Your task to perform on an android device: toggle javascript in the chrome app Image 0: 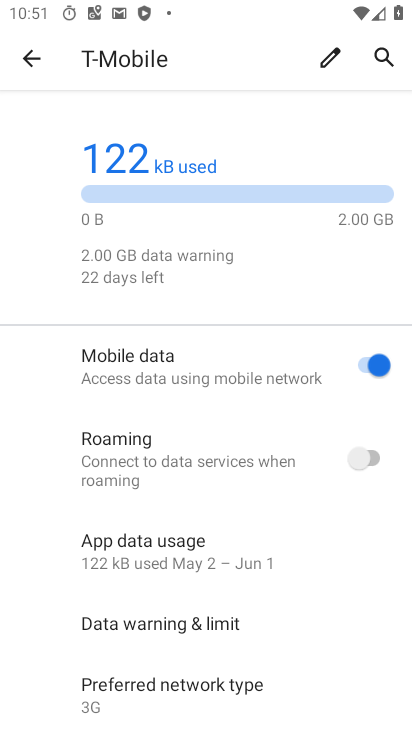
Step 0: click (37, 59)
Your task to perform on an android device: toggle javascript in the chrome app Image 1: 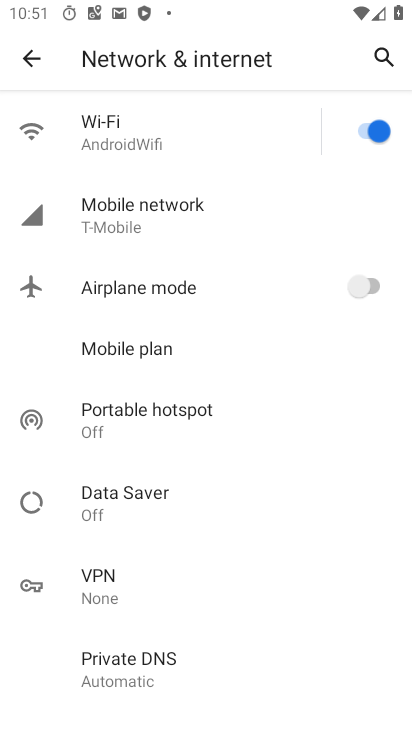
Step 1: press back button
Your task to perform on an android device: toggle javascript in the chrome app Image 2: 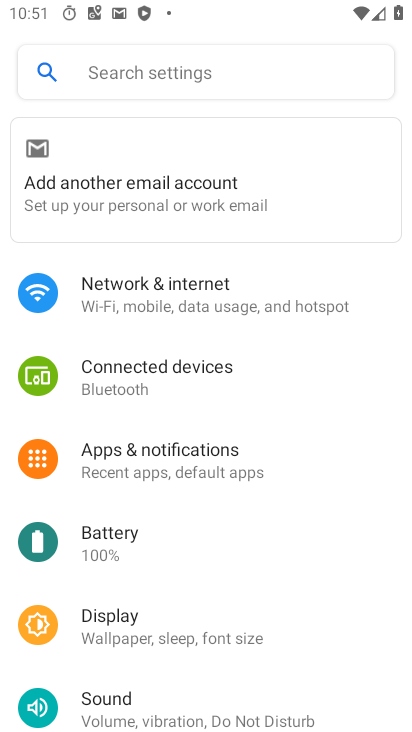
Step 2: press back button
Your task to perform on an android device: toggle javascript in the chrome app Image 3: 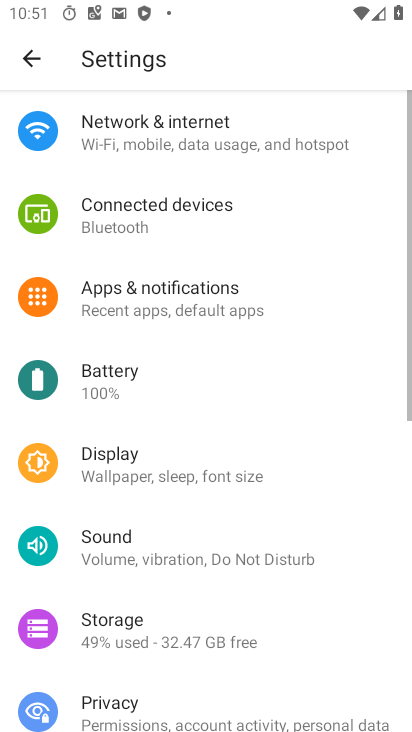
Step 3: press back button
Your task to perform on an android device: toggle javascript in the chrome app Image 4: 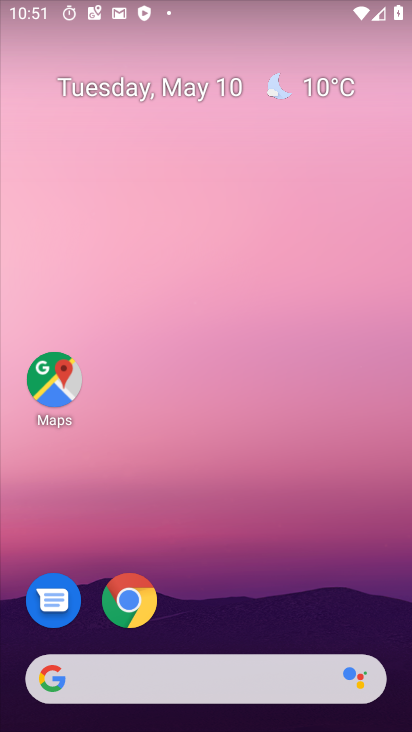
Step 4: drag from (224, 547) to (224, 36)
Your task to perform on an android device: toggle javascript in the chrome app Image 5: 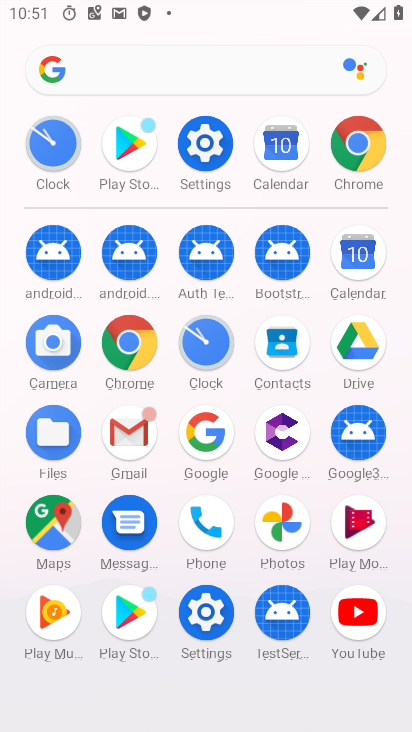
Step 5: click (124, 337)
Your task to perform on an android device: toggle javascript in the chrome app Image 6: 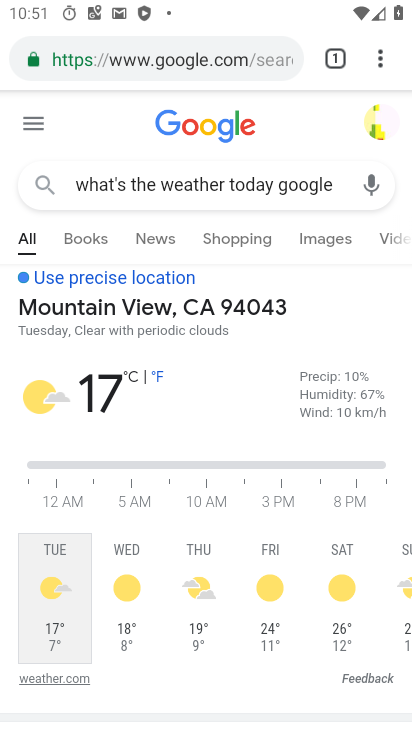
Step 6: drag from (379, 57) to (189, 612)
Your task to perform on an android device: toggle javascript in the chrome app Image 7: 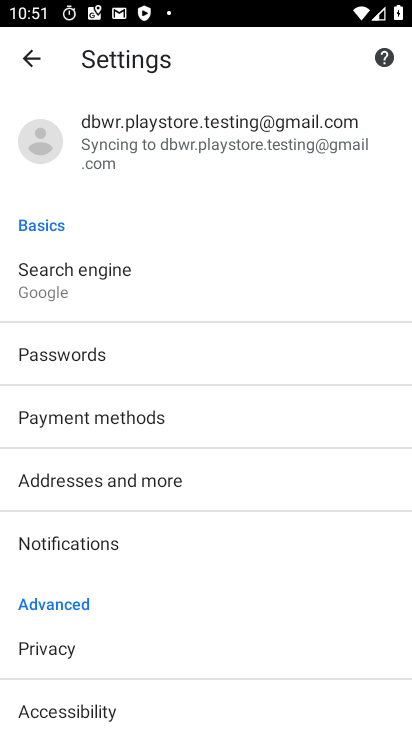
Step 7: drag from (166, 597) to (207, 122)
Your task to perform on an android device: toggle javascript in the chrome app Image 8: 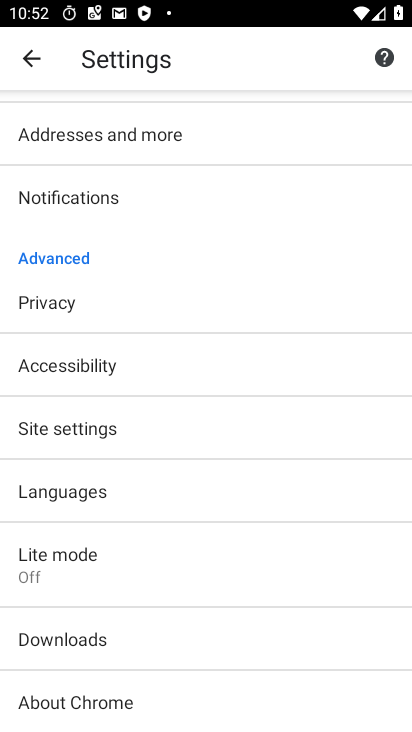
Step 8: click (109, 435)
Your task to perform on an android device: toggle javascript in the chrome app Image 9: 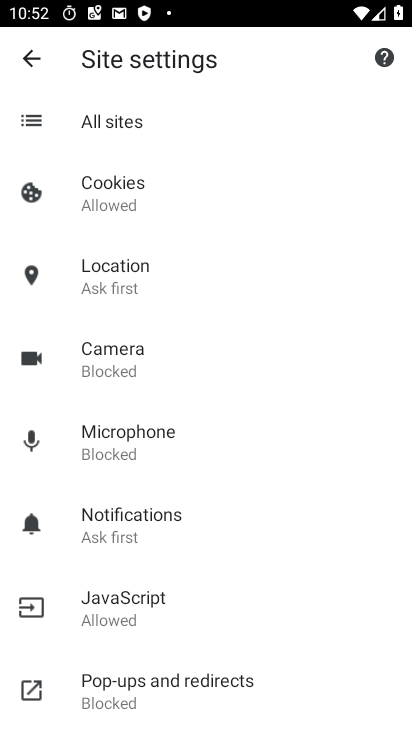
Step 9: click (118, 611)
Your task to perform on an android device: toggle javascript in the chrome app Image 10: 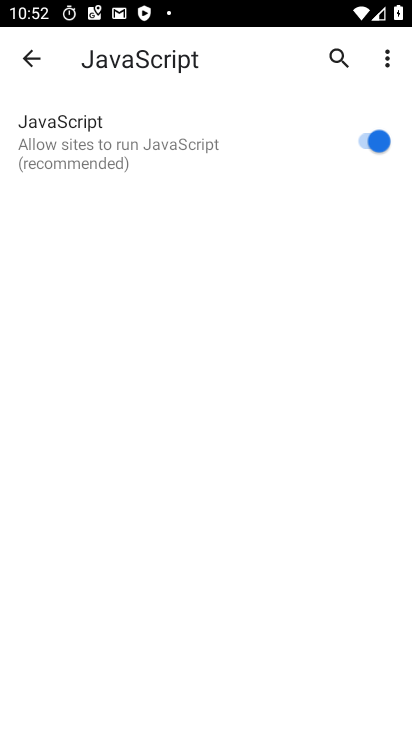
Step 10: click (370, 127)
Your task to perform on an android device: toggle javascript in the chrome app Image 11: 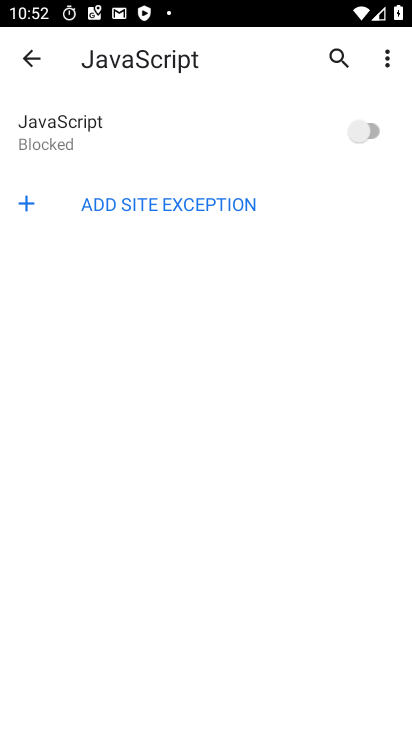
Step 11: task complete